Your task to perform on an android device: Open privacy settings Image 0: 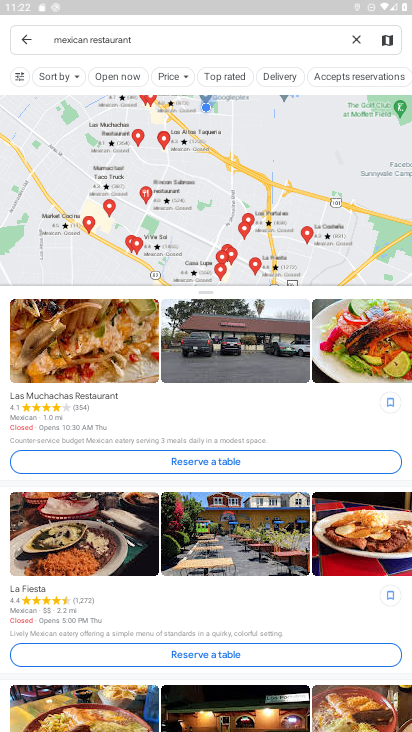
Step 0: press back button
Your task to perform on an android device: Open privacy settings Image 1: 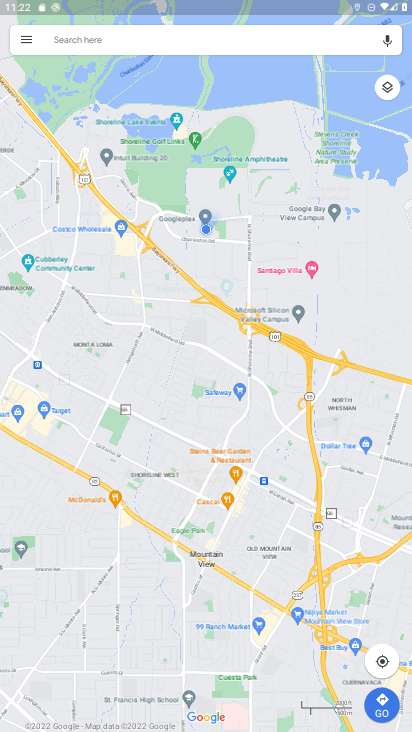
Step 1: press back button
Your task to perform on an android device: Open privacy settings Image 2: 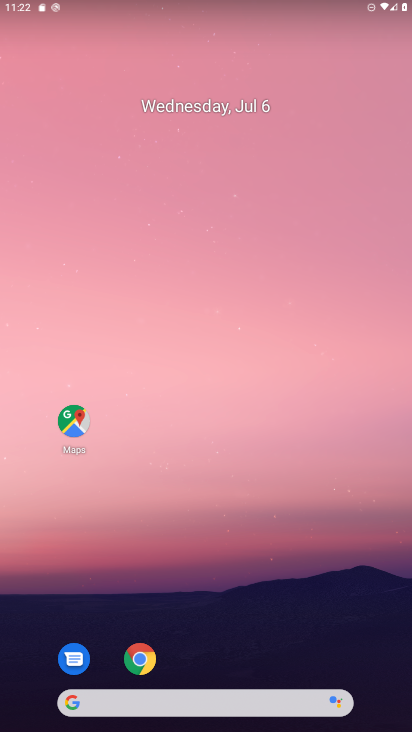
Step 2: drag from (191, 658) to (271, 4)
Your task to perform on an android device: Open privacy settings Image 3: 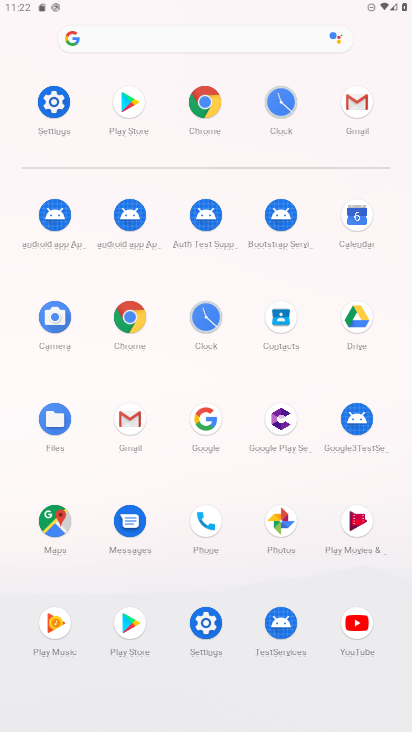
Step 3: click (61, 100)
Your task to perform on an android device: Open privacy settings Image 4: 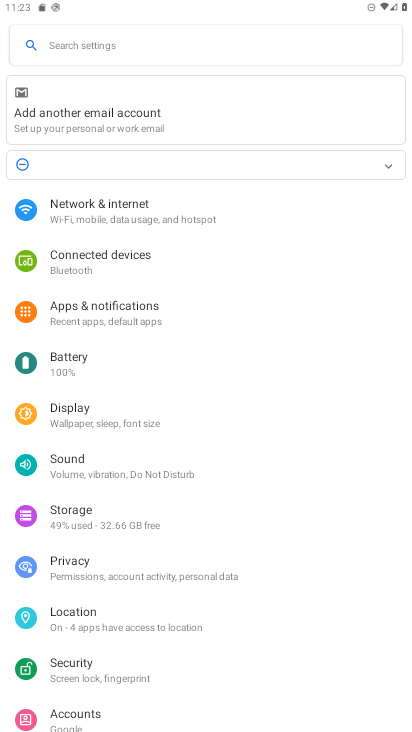
Step 4: click (85, 565)
Your task to perform on an android device: Open privacy settings Image 5: 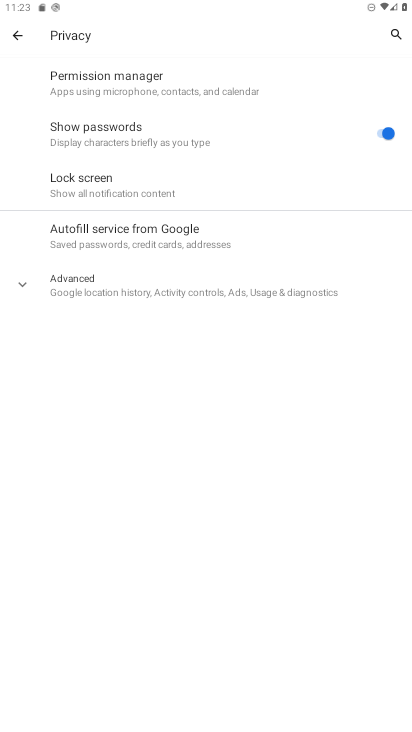
Step 5: task complete